Your task to perform on an android device: open sync settings in chrome Image 0: 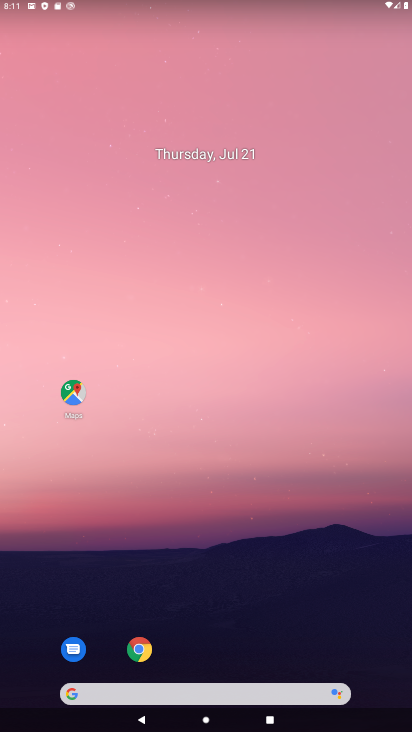
Step 0: click (135, 643)
Your task to perform on an android device: open sync settings in chrome Image 1: 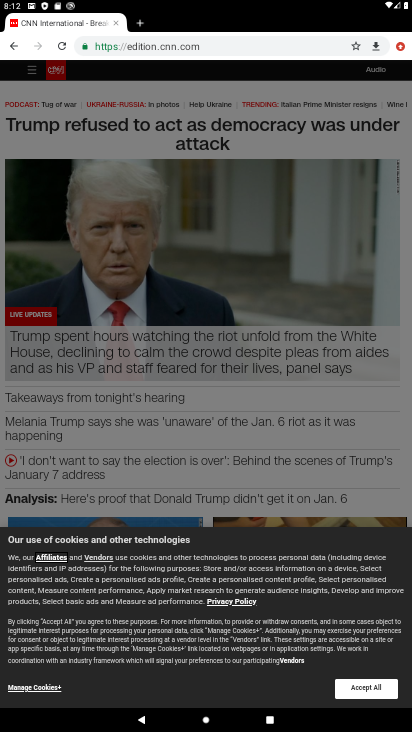
Step 1: click (397, 47)
Your task to perform on an android device: open sync settings in chrome Image 2: 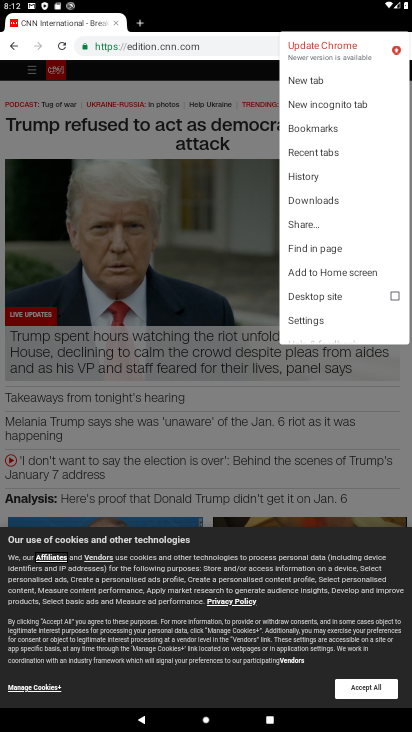
Step 2: click (305, 325)
Your task to perform on an android device: open sync settings in chrome Image 3: 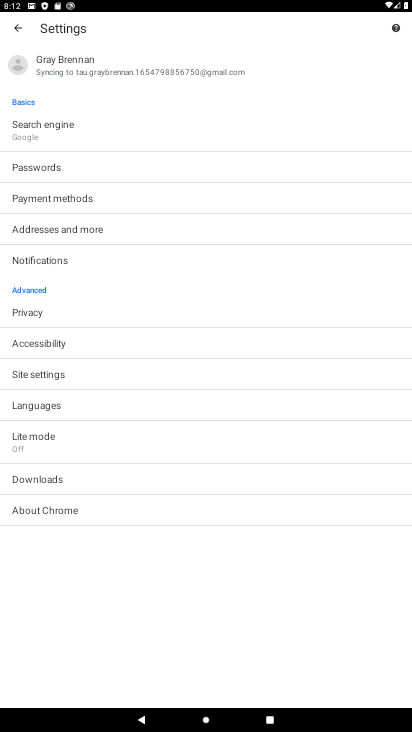
Step 3: click (92, 73)
Your task to perform on an android device: open sync settings in chrome Image 4: 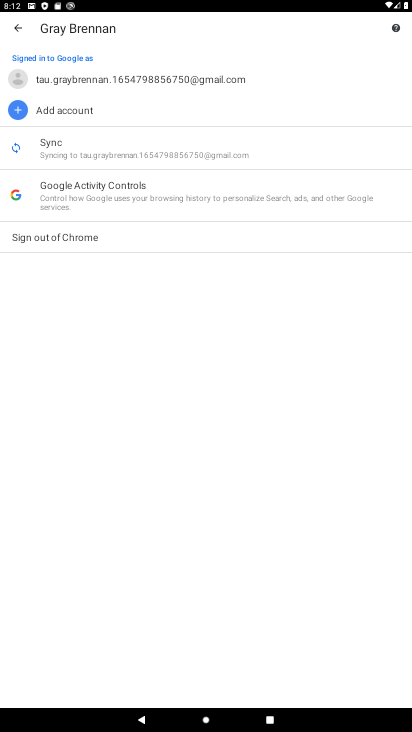
Step 4: click (95, 131)
Your task to perform on an android device: open sync settings in chrome Image 5: 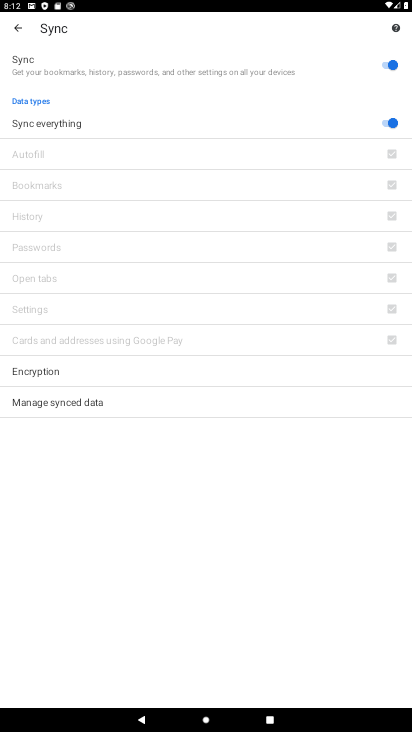
Step 5: task complete